Your task to perform on an android device: toggle data saver in the chrome app Image 0: 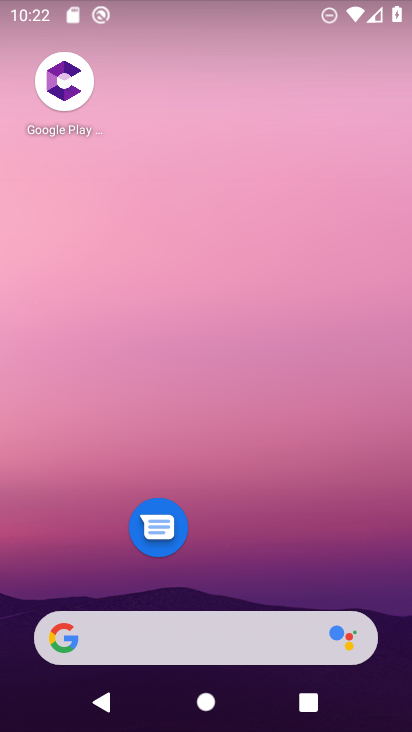
Step 0: drag from (287, 560) to (334, 38)
Your task to perform on an android device: toggle data saver in the chrome app Image 1: 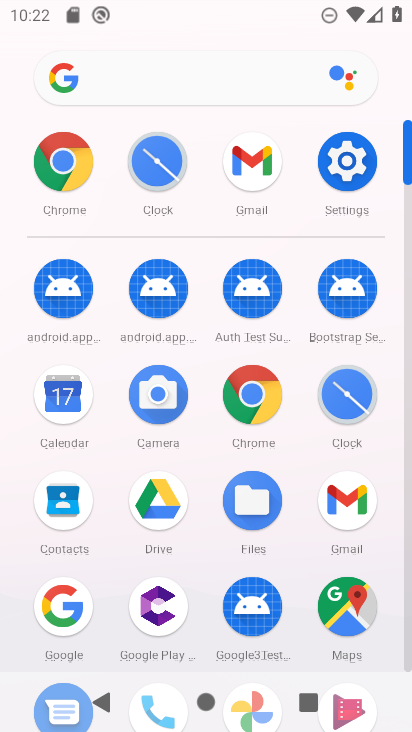
Step 1: click (69, 178)
Your task to perform on an android device: toggle data saver in the chrome app Image 2: 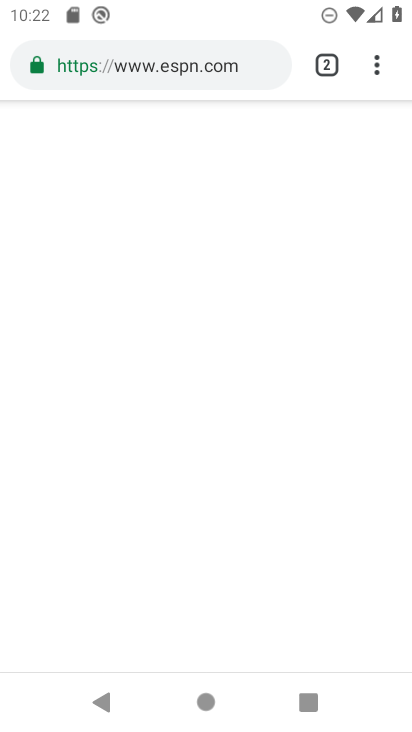
Step 2: click (377, 67)
Your task to perform on an android device: toggle data saver in the chrome app Image 3: 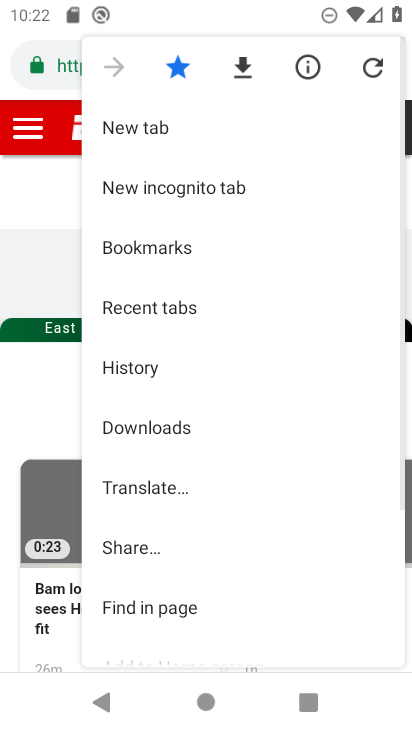
Step 3: drag from (200, 609) to (263, 318)
Your task to perform on an android device: toggle data saver in the chrome app Image 4: 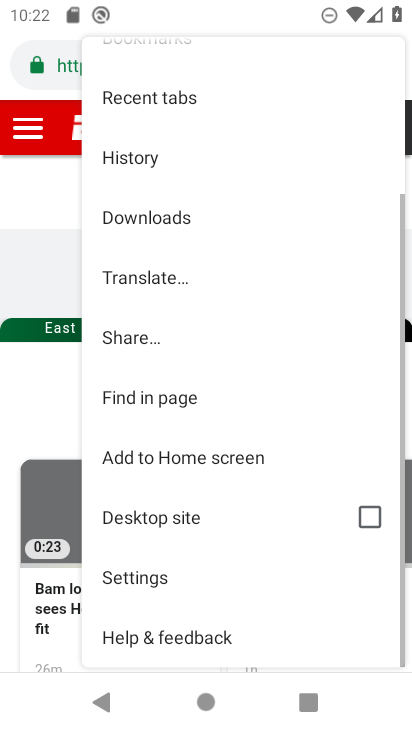
Step 4: click (196, 569)
Your task to perform on an android device: toggle data saver in the chrome app Image 5: 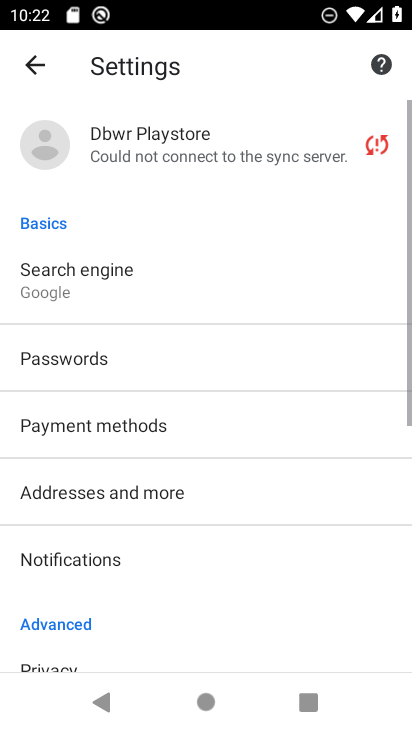
Step 5: drag from (209, 642) to (246, 241)
Your task to perform on an android device: toggle data saver in the chrome app Image 6: 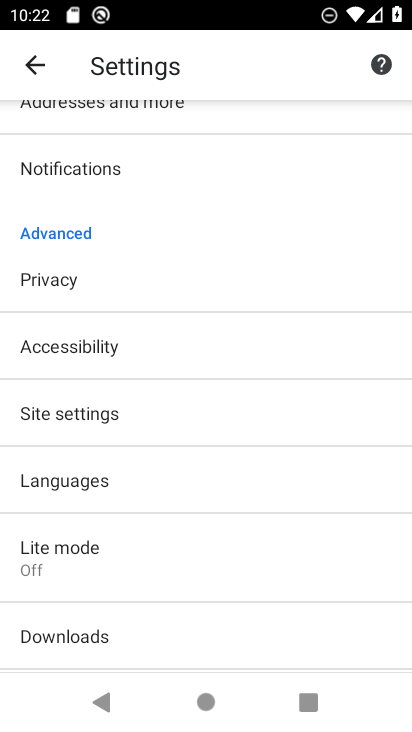
Step 6: click (158, 565)
Your task to perform on an android device: toggle data saver in the chrome app Image 7: 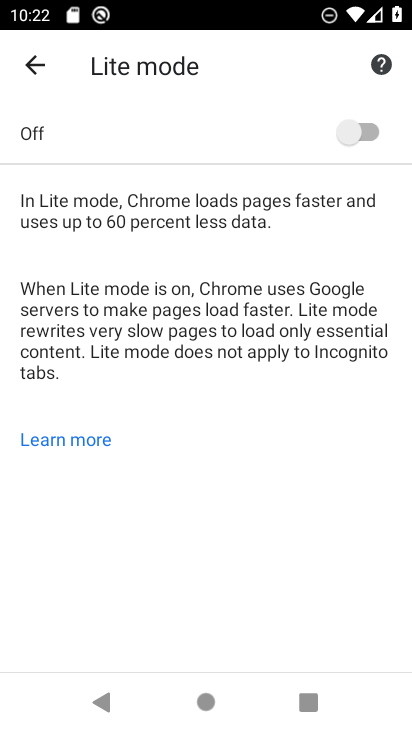
Step 7: click (379, 142)
Your task to perform on an android device: toggle data saver in the chrome app Image 8: 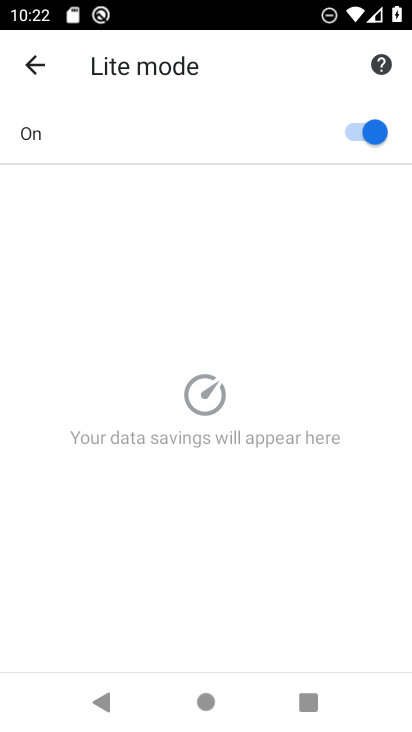
Step 8: task complete